Your task to perform on an android device: What's on my calendar today? Image 0: 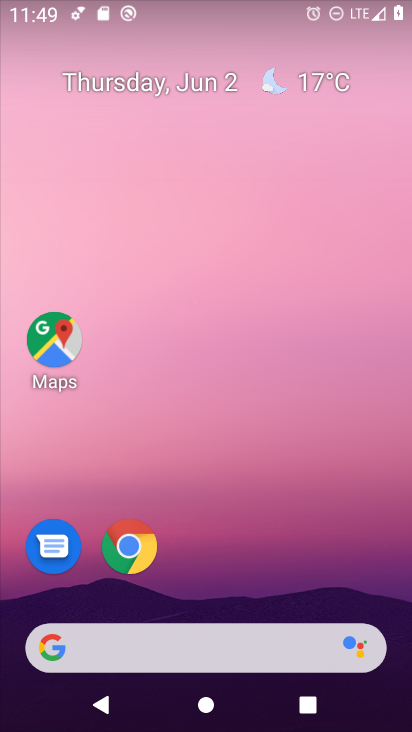
Step 0: click (179, 32)
Your task to perform on an android device: What's on my calendar today? Image 1: 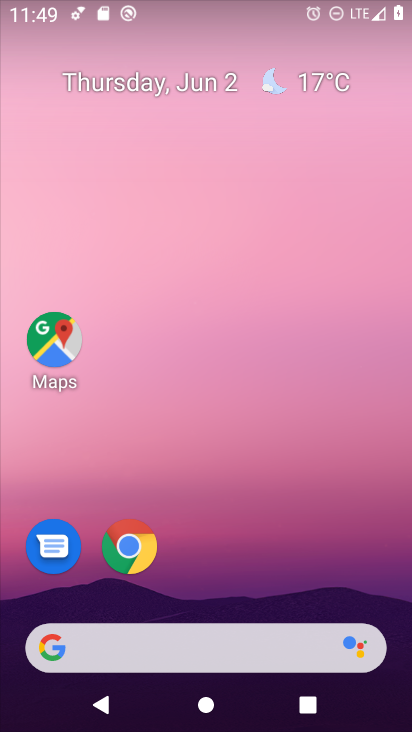
Step 1: drag from (230, 586) to (194, 55)
Your task to perform on an android device: What's on my calendar today? Image 2: 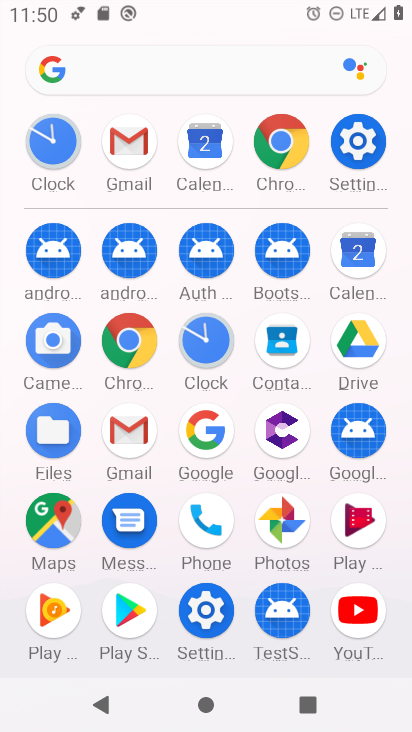
Step 2: drag from (7, 575) to (3, 163)
Your task to perform on an android device: What's on my calendar today? Image 3: 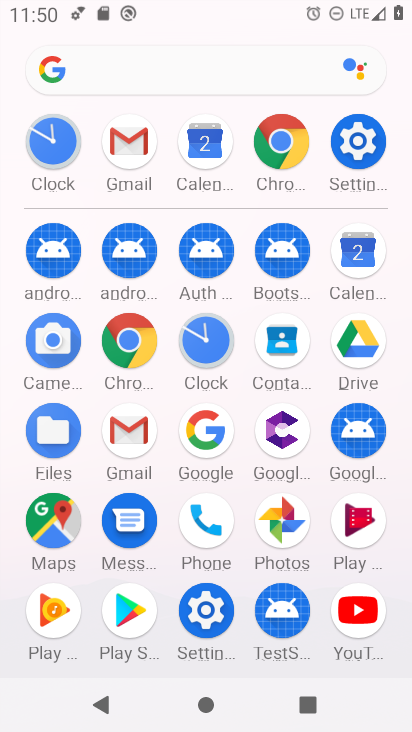
Step 3: click (361, 243)
Your task to perform on an android device: What's on my calendar today? Image 4: 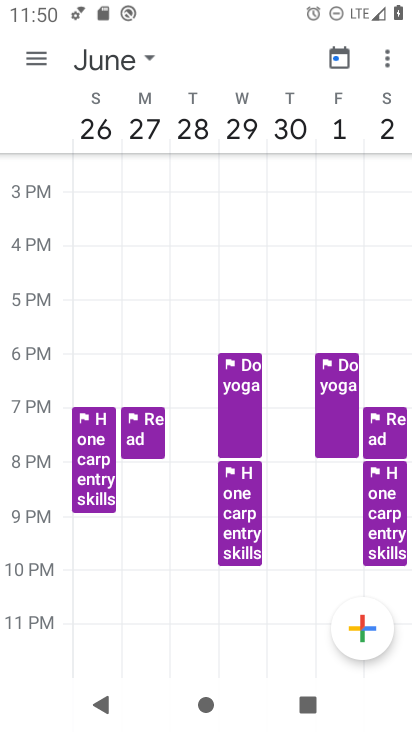
Step 4: click (331, 46)
Your task to perform on an android device: What's on my calendar today? Image 5: 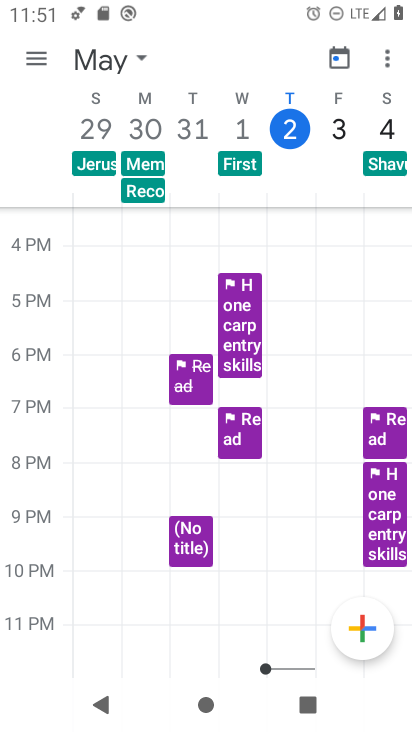
Step 5: task complete